Your task to perform on an android device: turn on priority inbox in the gmail app Image 0: 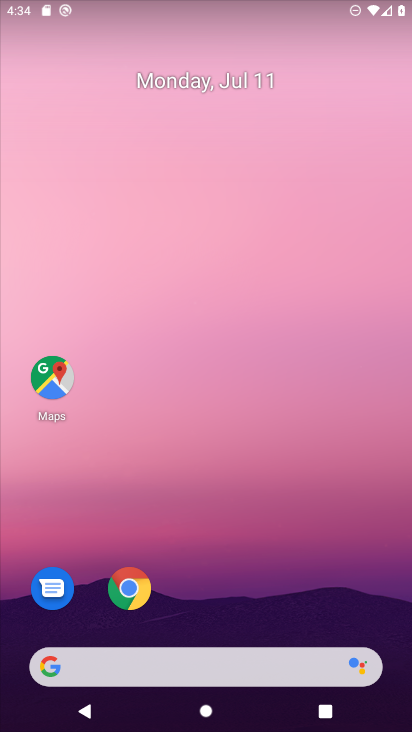
Step 0: drag from (220, 563) to (218, 122)
Your task to perform on an android device: turn on priority inbox in the gmail app Image 1: 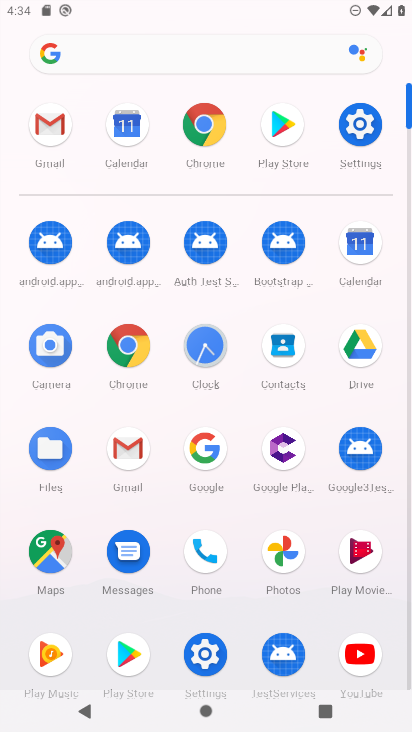
Step 1: click (50, 123)
Your task to perform on an android device: turn on priority inbox in the gmail app Image 2: 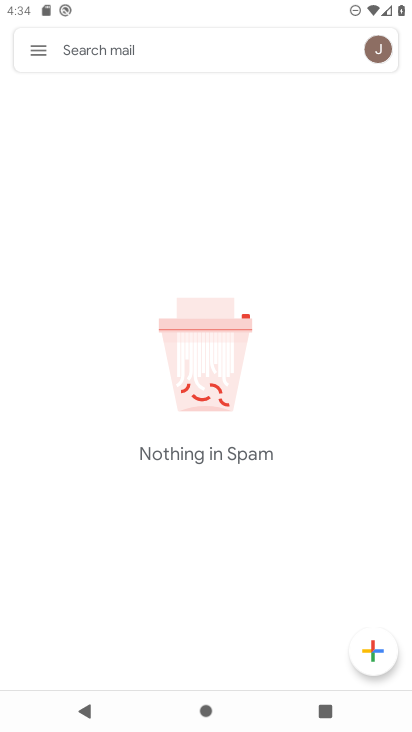
Step 2: click (35, 49)
Your task to perform on an android device: turn on priority inbox in the gmail app Image 3: 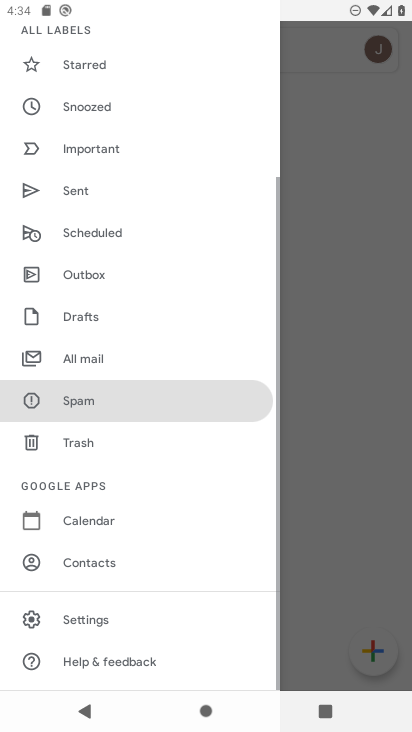
Step 3: click (90, 623)
Your task to perform on an android device: turn on priority inbox in the gmail app Image 4: 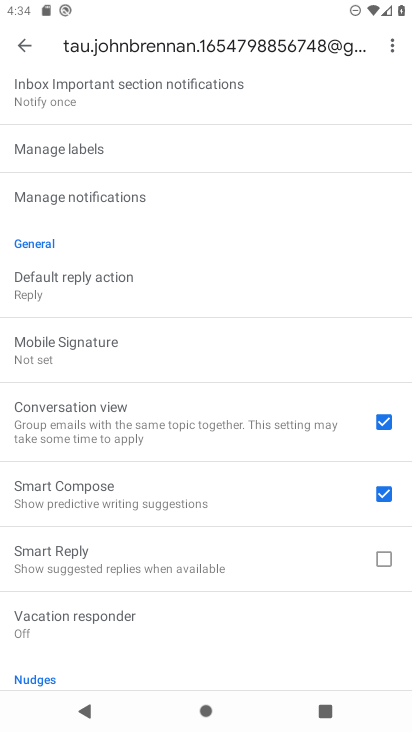
Step 4: drag from (284, 251) to (274, 672)
Your task to perform on an android device: turn on priority inbox in the gmail app Image 5: 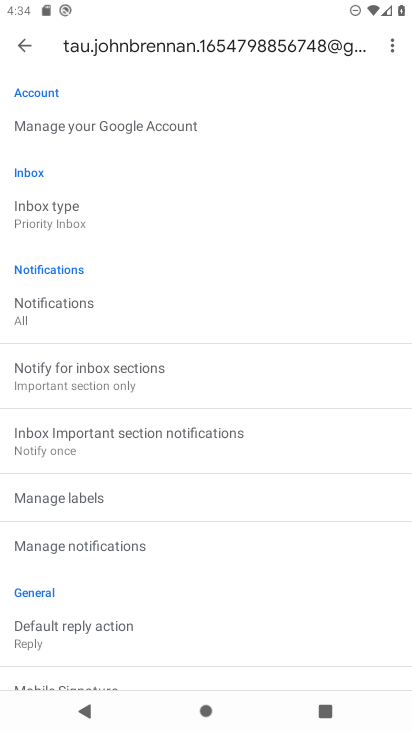
Step 5: click (58, 212)
Your task to perform on an android device: turn on priority inbox in the gmail app Image 6: 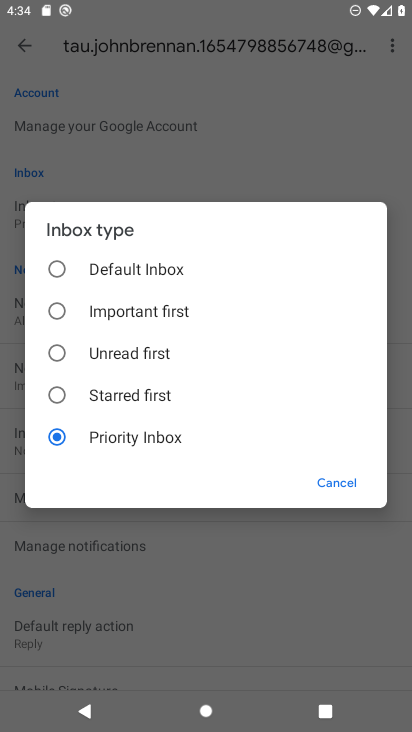
Step 6: task complete